Your task to perform on an android device: Go to CNN.com Image 0: 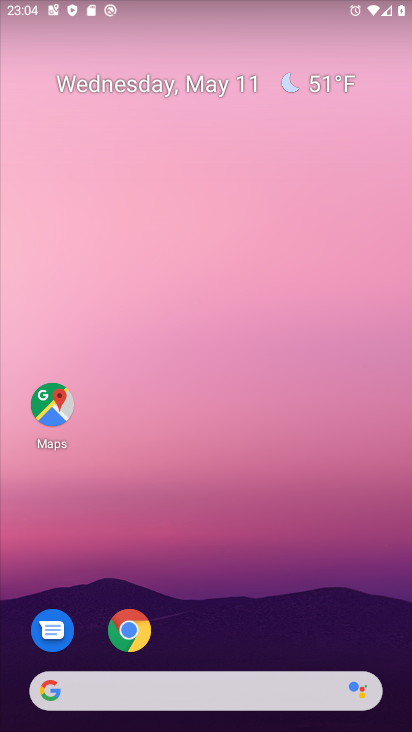
Step 0: click (125, 635)
Your task to perform on an android device: Go to CNN.com Image 1: 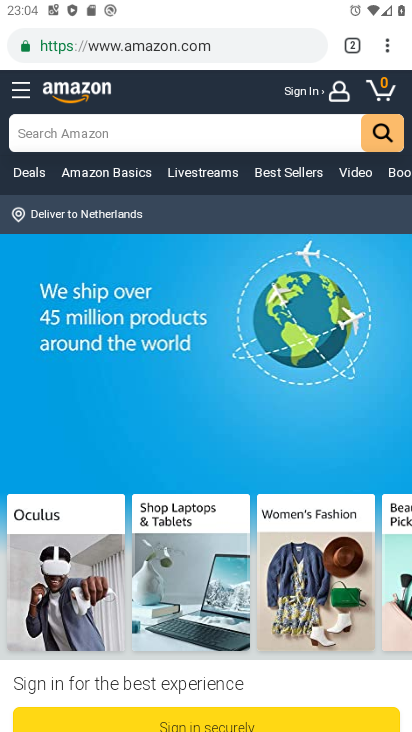
Step 1: click (386, 47)
Your task to perform on an android device: Go to CNN.com Image 2: 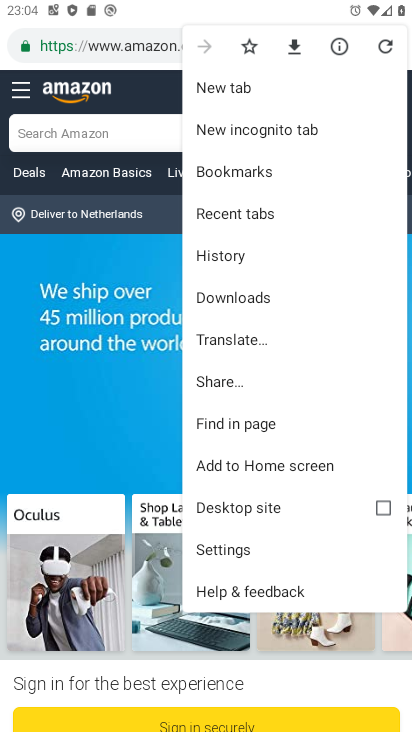
Step 2: click (241, 88)
Your task to perform on an android device: Go to CNN.com Image 3: 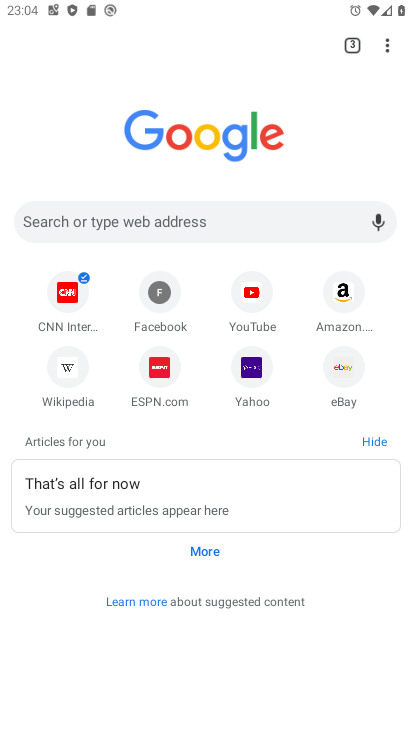
Step 3: click (53, 291)
Your task to perform on an android device: Go to CNN.com Image 4: 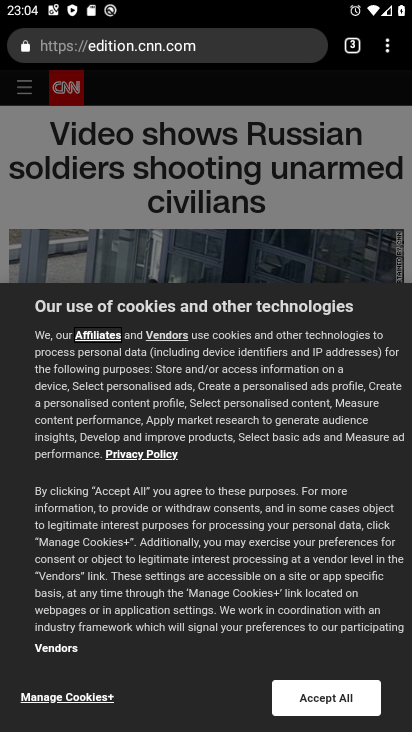
Step 4: task complete